Your task to perform on an android device: change notification settings in the gmail app Image 0: 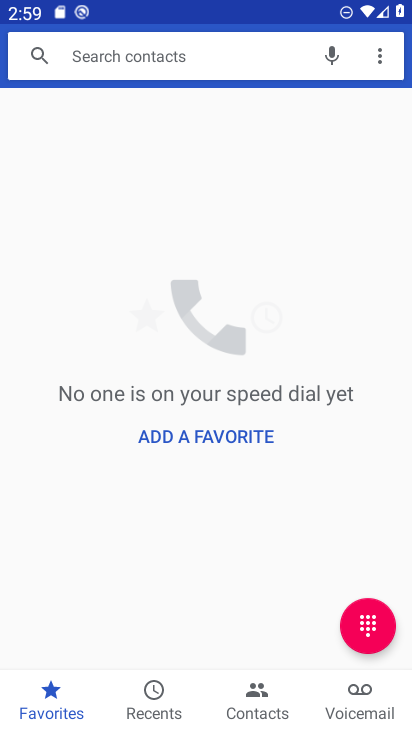
Step 0: press home button
Your task to perform on an android device: change notification settings in the gmail app Image 1: 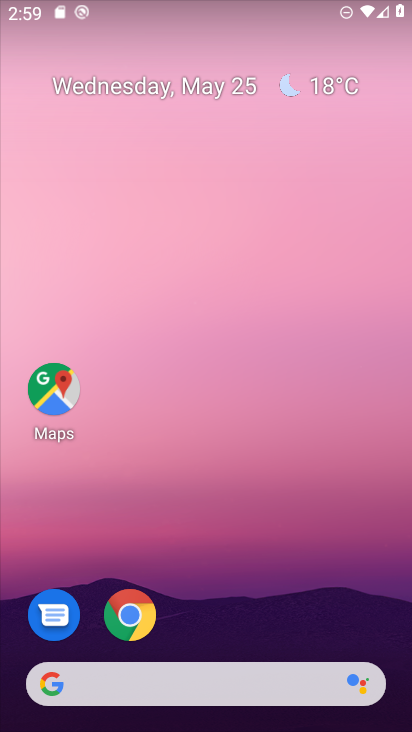
Step 1: drag from (242, 544) to (282, 43)
Your task to perform on an android device: change notification settings in the gmail app Image 2: 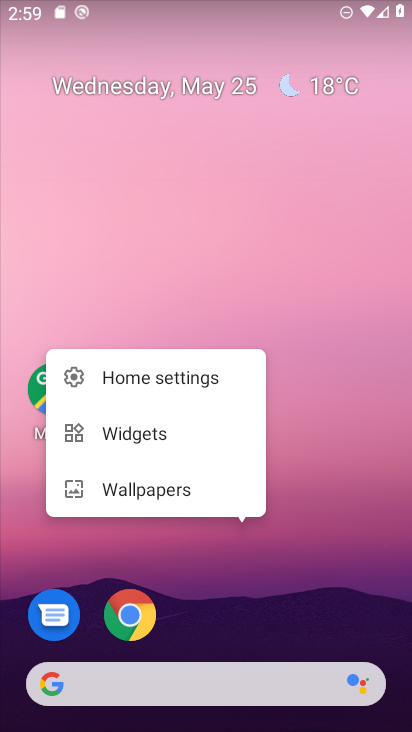
Step 2: click (308, 427)
Your task to perform on an android device: change notification settings in the gmail app Image 3: 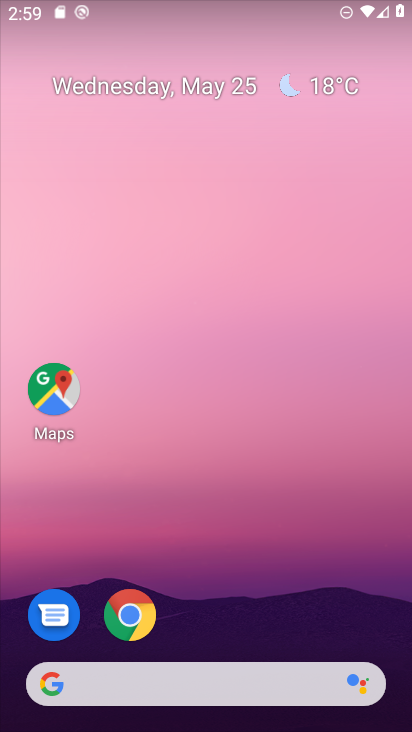
Step 3: drag from (218, 587) to (256, 30)
Your task to perform on an android device: change notification settings in the gmail app Image 4: 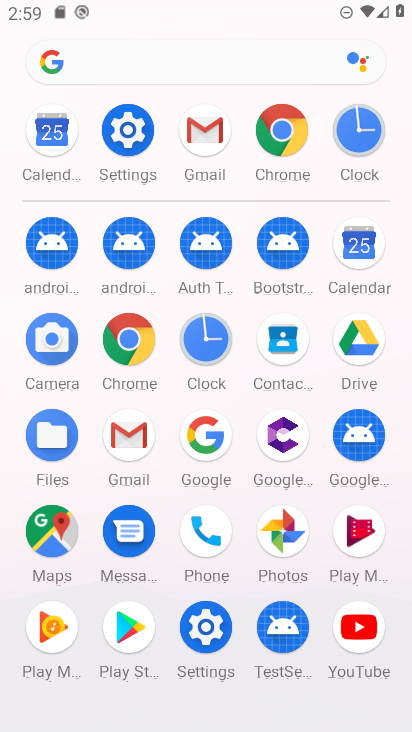
Step 4: click (205, 127)
Your task to perform on an android device: change notification settings in the gmail app Image 5: 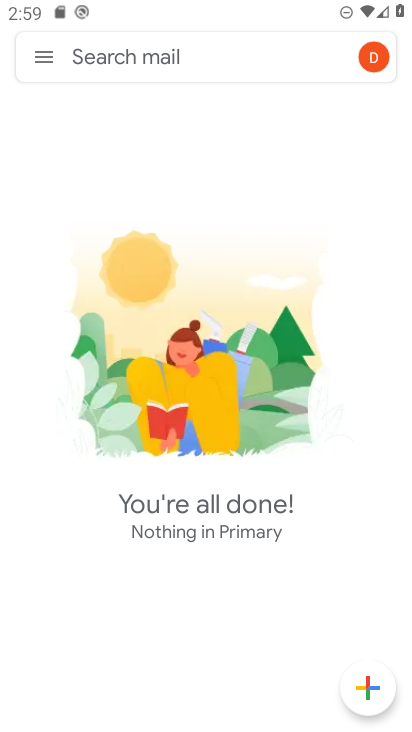
Step 5: click (42, 56)
Your task to perform on an android device: change notification settings in the gmail app Image 6: 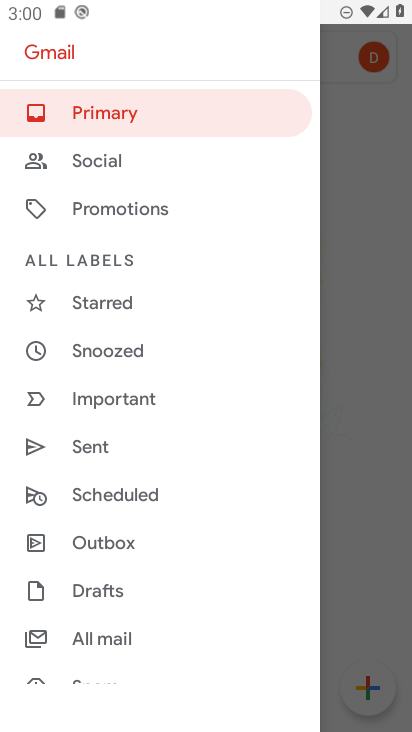
Step 6: drag from (133, 485) to (131, 248)
Your task to perform on an android device: change notification settings in the gmail app Image 7: 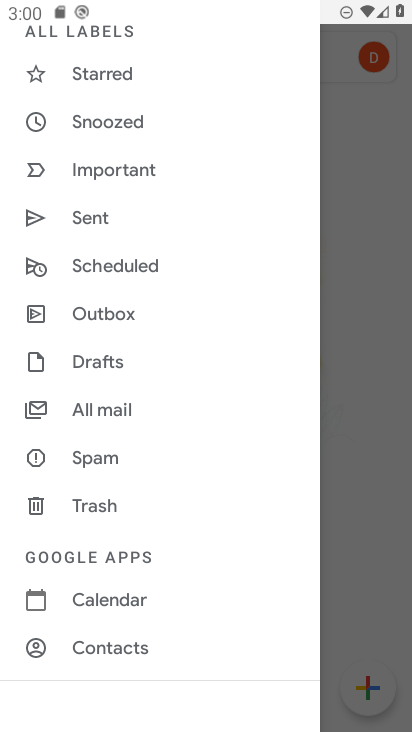
Step 7: drag from (141, 557) to (134, 300)
Your task to perform on an android device: change notification settings in the gmail app Image 8: 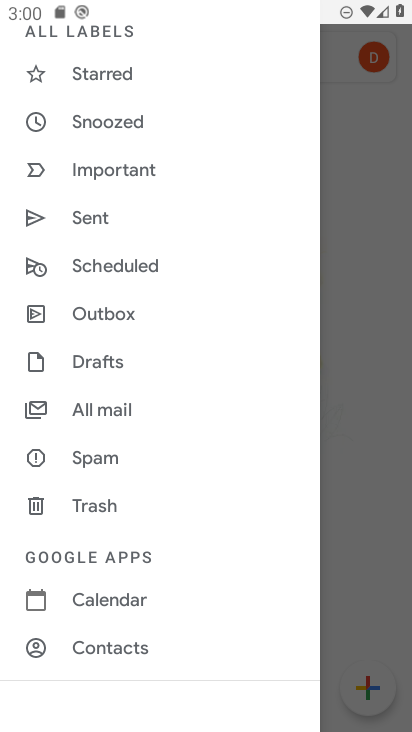
Step 8: drag from (148, 431) to (169, 234)
Your task to perform on an android device: change notification settings in the gmail app Image 9: 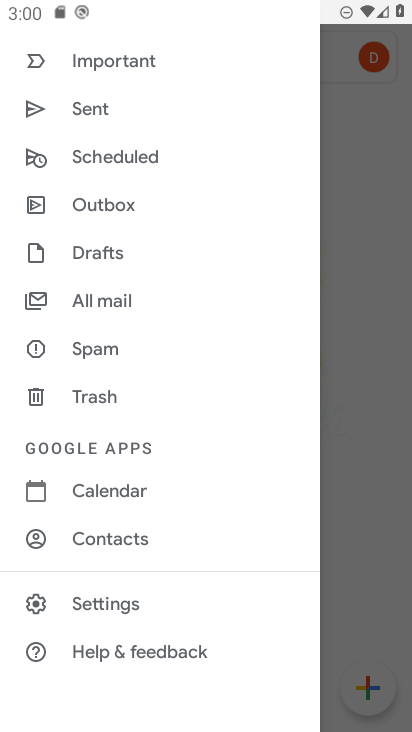
Step 9: click (125, 593)
Your task to perform on an android device: change notification settings in the gmail app Image 10: 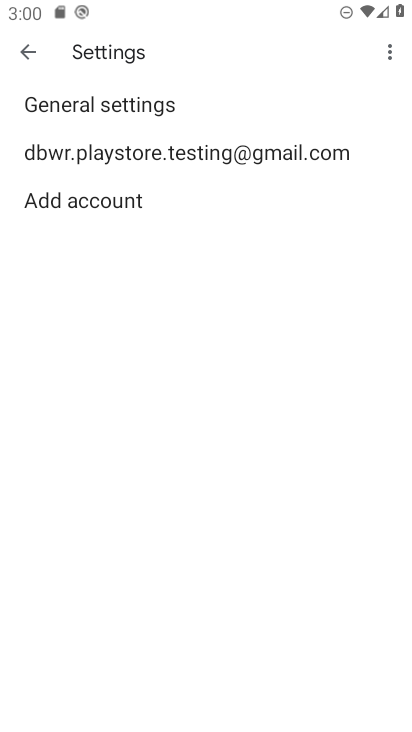
Step 10: click (149, 93)
Your task to perform on an android device: change notification settings in the gmail app Image 11: 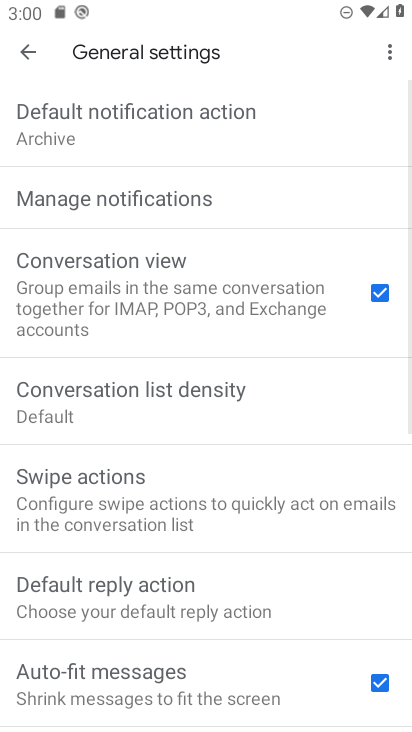
Step 11: click (166, 187)
Your task to perform on an android device: change notification settings in the gmail app Image 12: 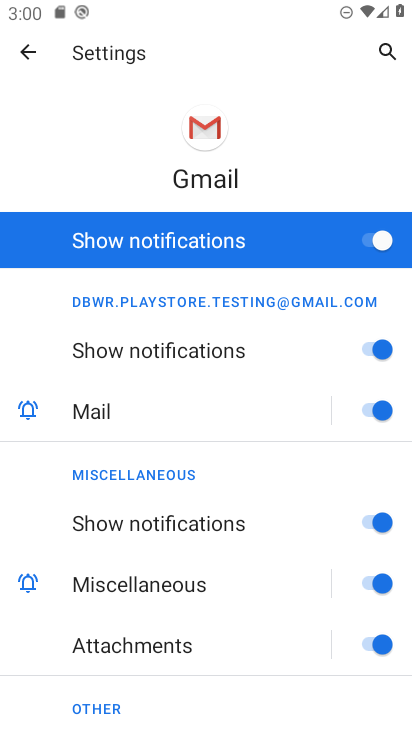
Step 12: click (371, 247)
Your task to perform on an android device: change notification settings in the gmail app Image 13: 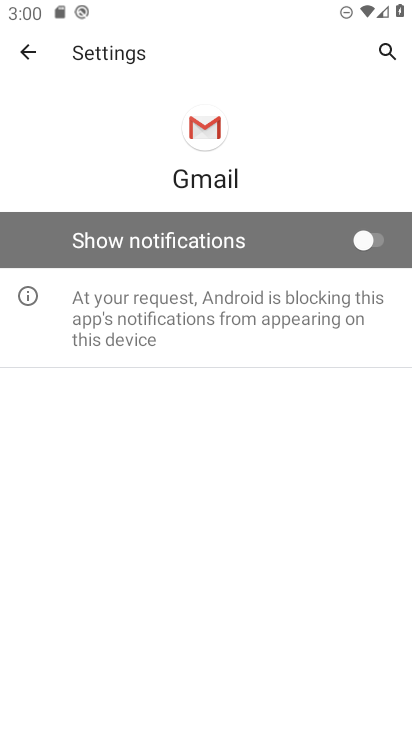
Step 13: task complete